Your task to perform on an android device: read, delete, or share a saved page in the chrome app Image 0: 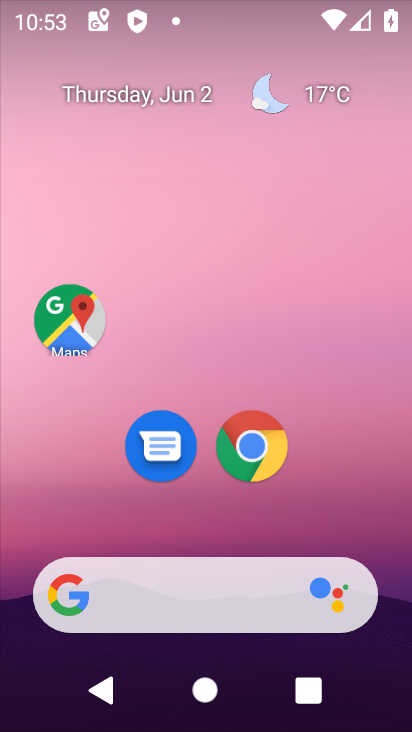
Step 0: click (258, 444)
Your task to perform on an android device: read, delete, or share a saved page in the chrome app Image 1: 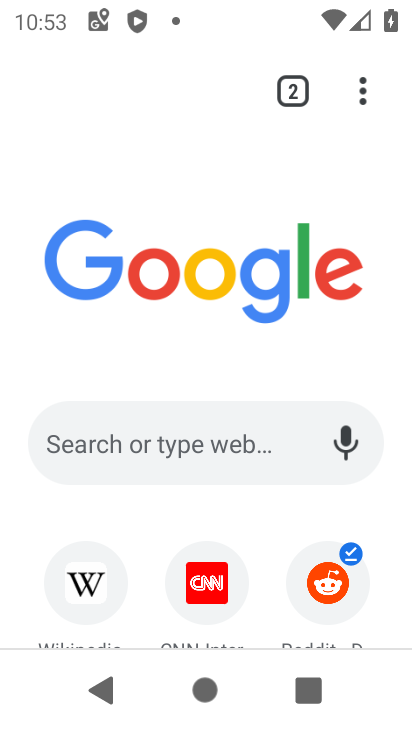
Step 1: drag from (359, 76) to (318, 398)
Your task to perform on an android device: read, delete, or share a saved page in the chrome app Image 2: 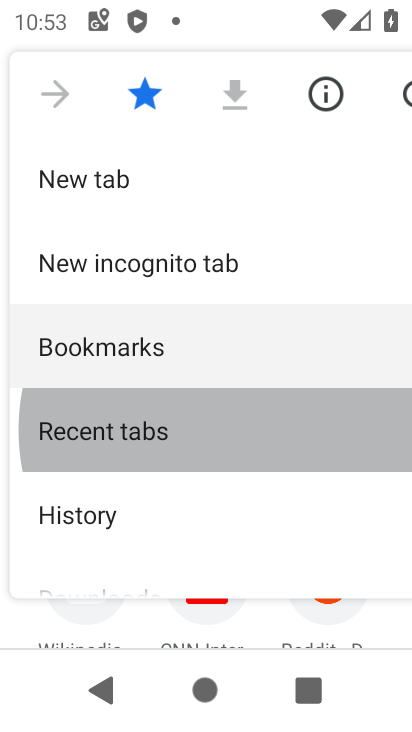
Step 2: click (255, 405)
Your task to perform on an android device: read, delete, or share a saved page in the chrome app Image 3: 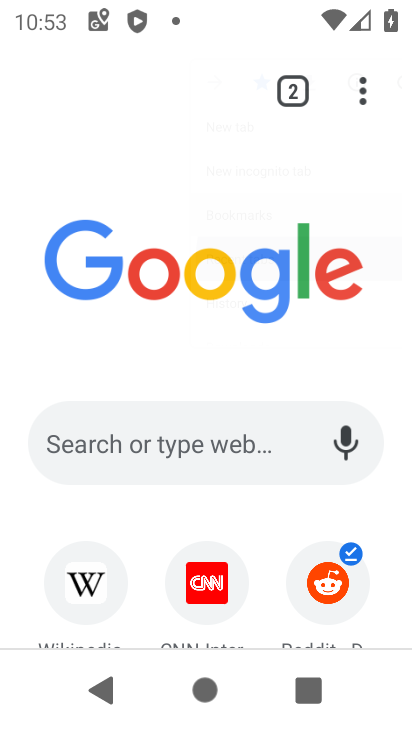
Step 3: task complete